Your task to perform on an android device: Search for the best selling video games at Target Image 0: 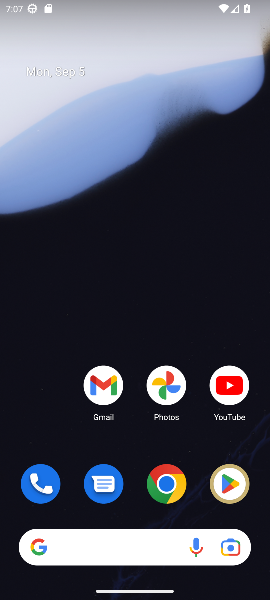
Step 0: drag from (56, 518) to (57, 125)
Your task to perform on an android device: Search for the best selling video games at Target Image 1: 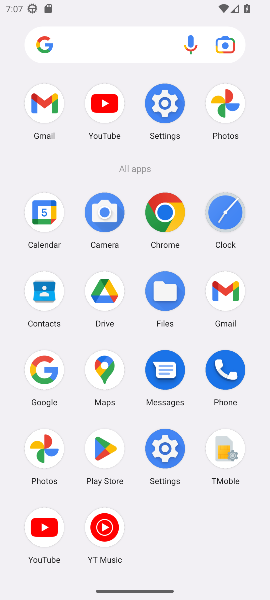
Step 1: click (158, 222)
Your task to perform on an android device: Search for the best selling video games at Target Image 2: 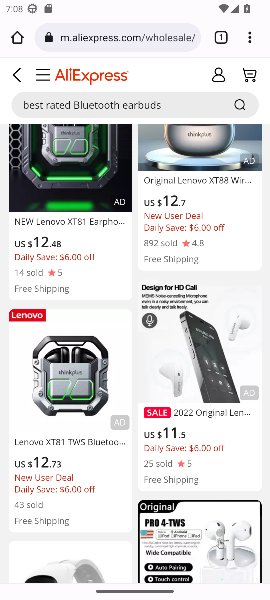
Step 2: click (175, 40)
Your task to perform on an android device: Search for the best selling video games at Target Image 3: 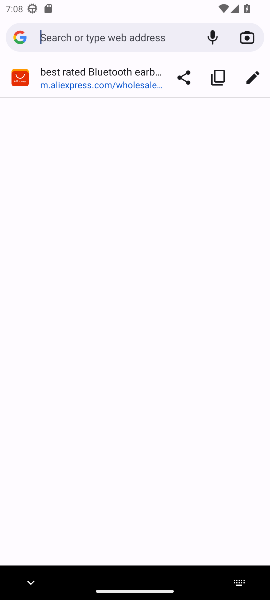
Step 3: type "Target"
Your task to perform on an android device: Search for the best selling video games at Target Image 4: 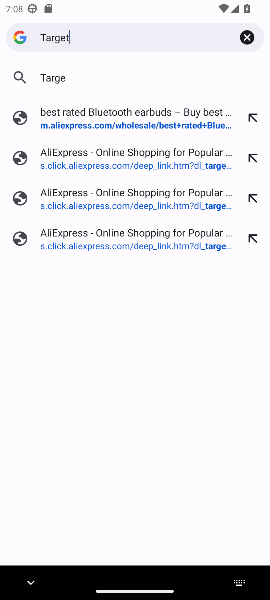
Step 4: press enter
Your task to perform on an android device: Search for the best selling video games at Target Image 5: 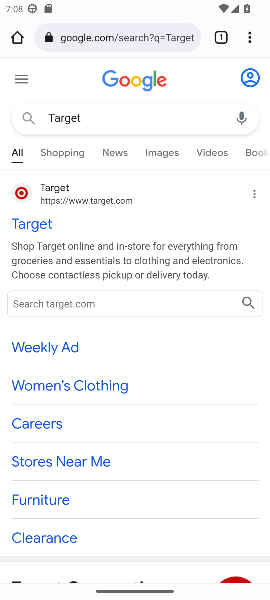
Step 5: click (38, 220)
Your task to perform on an android device: Search for the best selling video games at Target Image 6: 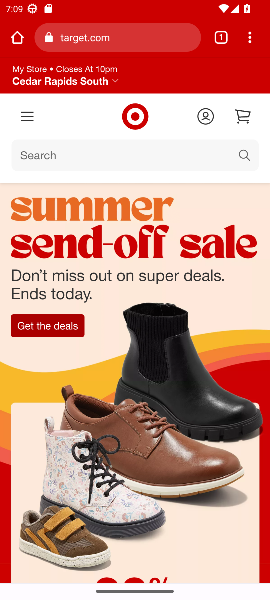
Step 6: click (80, 158)
Your task to perform on an android device: Search for the best selling video games at Target Image 7: 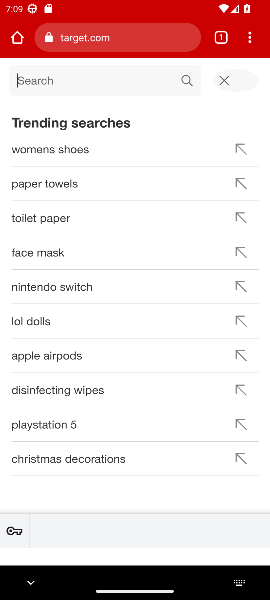
Step 7: type "best selling video games"
Your task to perform on an android device: Search for the best selling video games at Target Image 8: 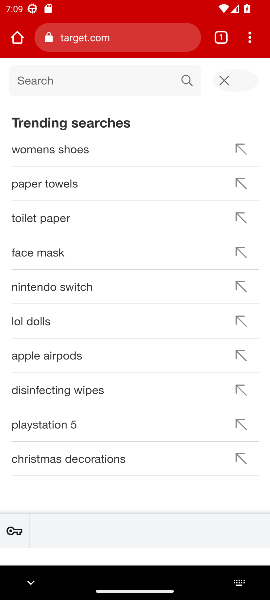
Step 8: press enter
Your task to perform on an android device: Search for the best selling video games at Target Image 9: 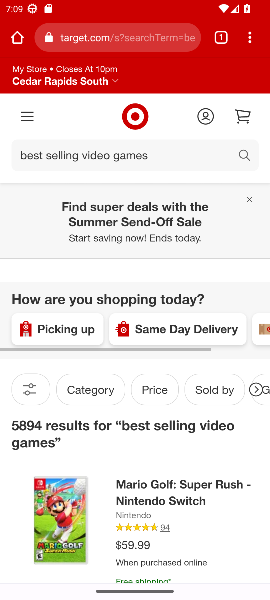
Step 9: task complete